Your task to perform on an android device: change text size in settings app Image 0: 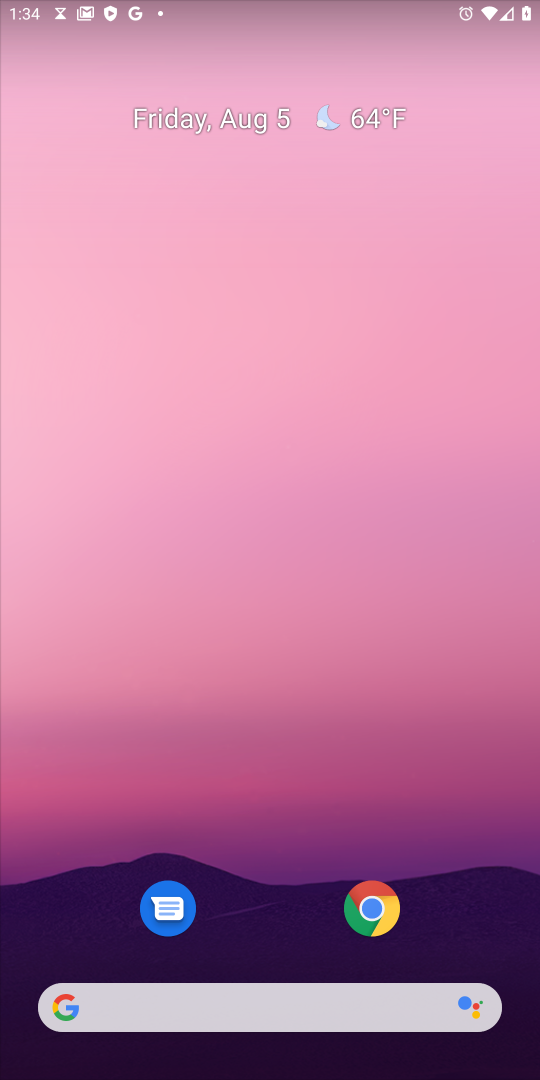
Step 0: press home button
Your task to perform on an android device: change text size in settings app Image 1: 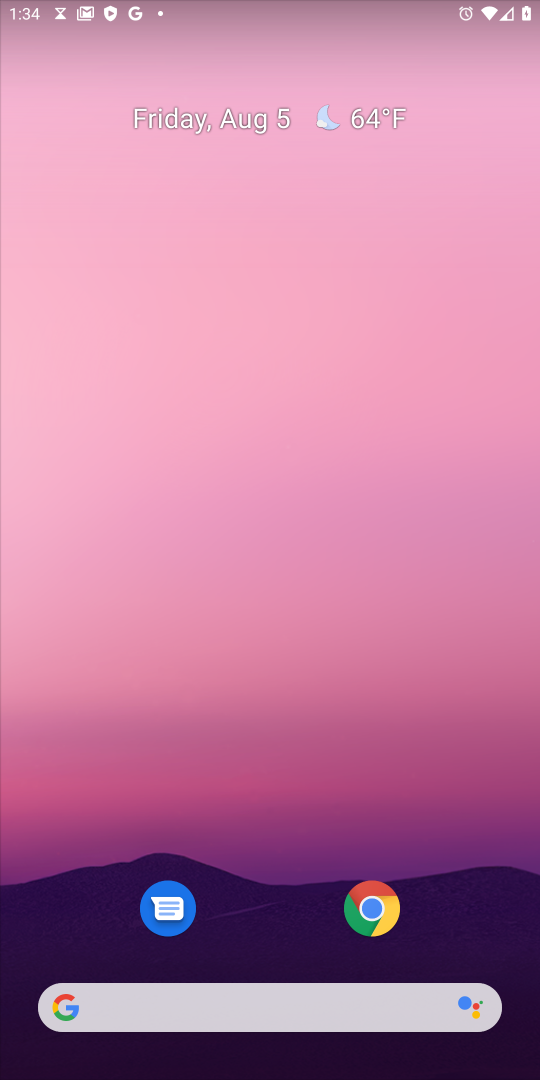
Step 1: drag from (227, 971) to (349, 0)
Your task to perform on an android device: change text size in settings app Image 2: 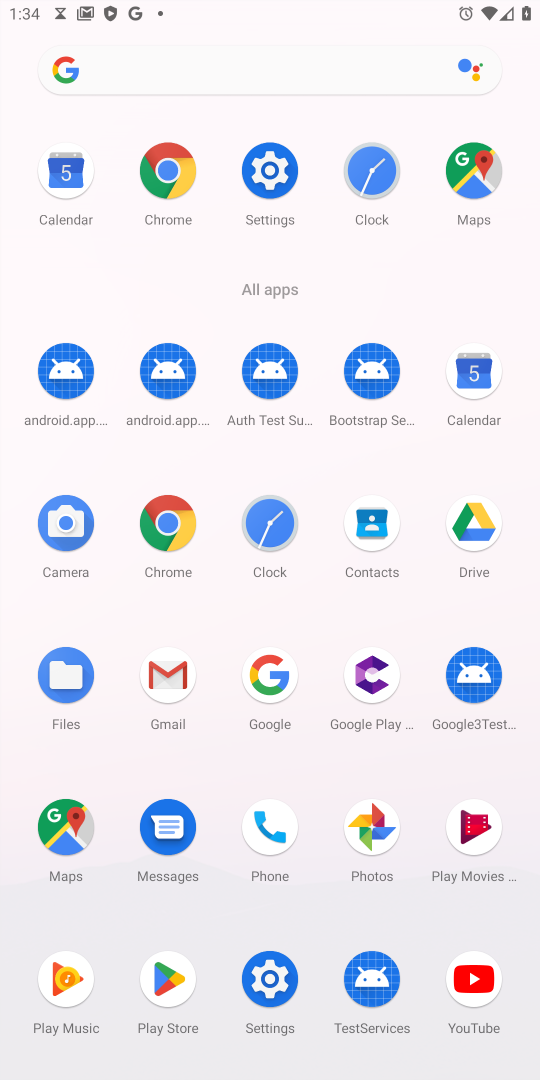
Step 2: click (272, 173)
Your task to perform on an android device: change text size in settings app Image 3: 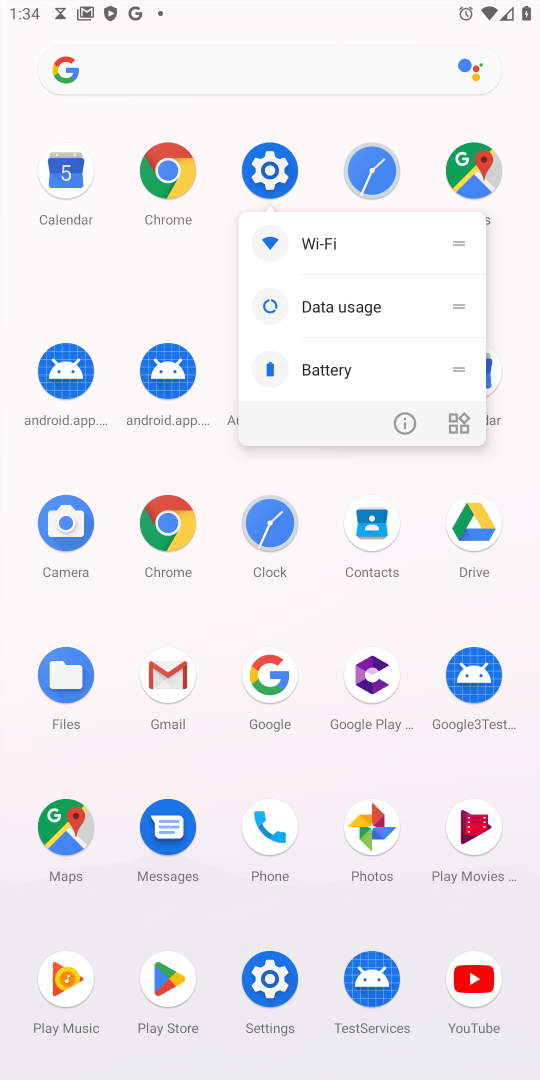
Step 3: click (272, 173)
Your task to perform on an android device: change text size in settings app Image 4: 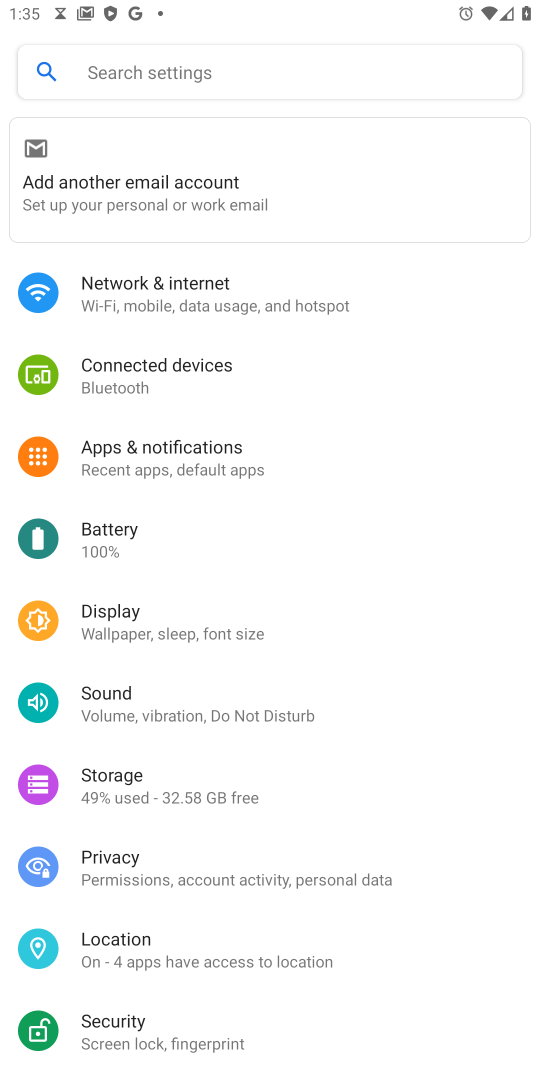
Step 4: drag from (209, 963) to (228, 454)
Your task to perform on an android device: change text size in settings app Image 5: 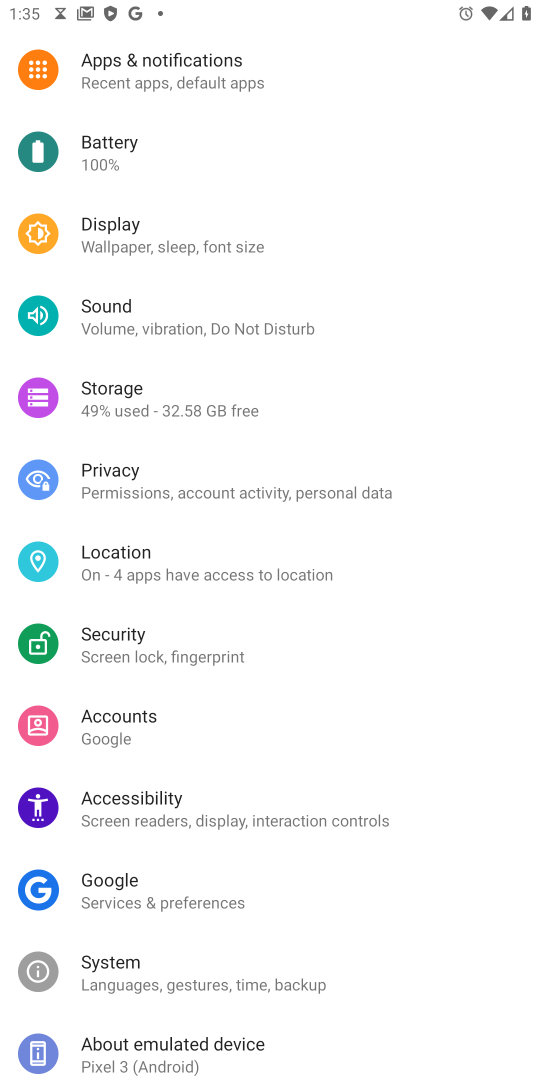
Step 5: click (126, 262)
Your task to perform on an android device: change text size in settings app Image 6: 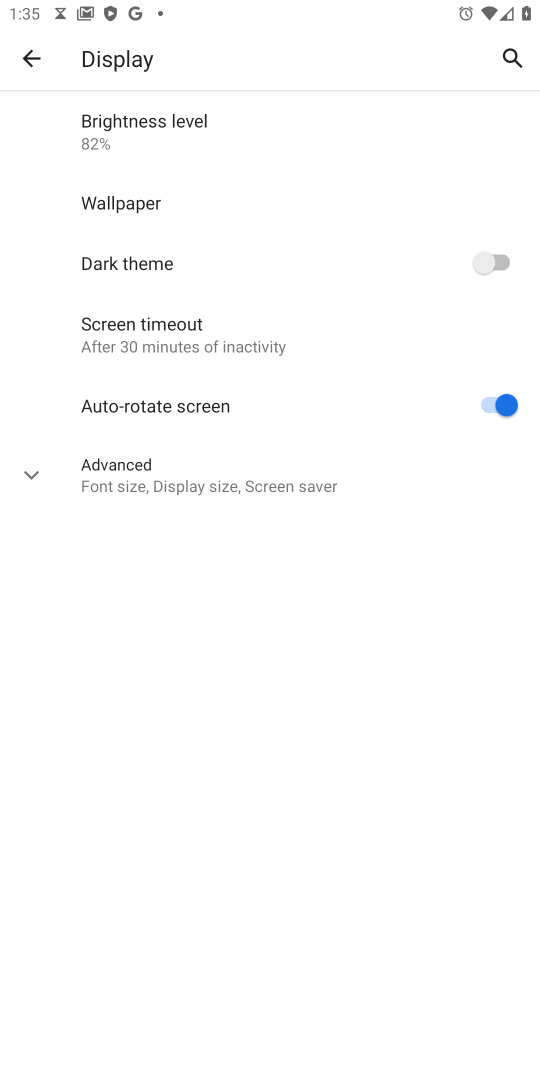
Step 6: click (188, 482)
Your task to perform on an android device: change text size in settings app Image 7: 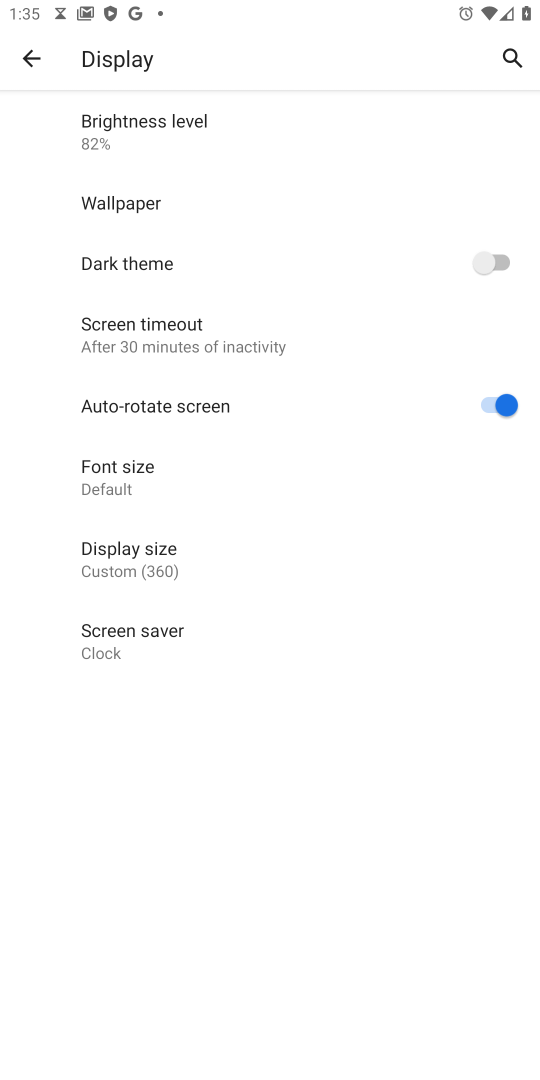
Step 7: click (188, 482)
Your task to perform on an android device: change text size in settings app Image 8: 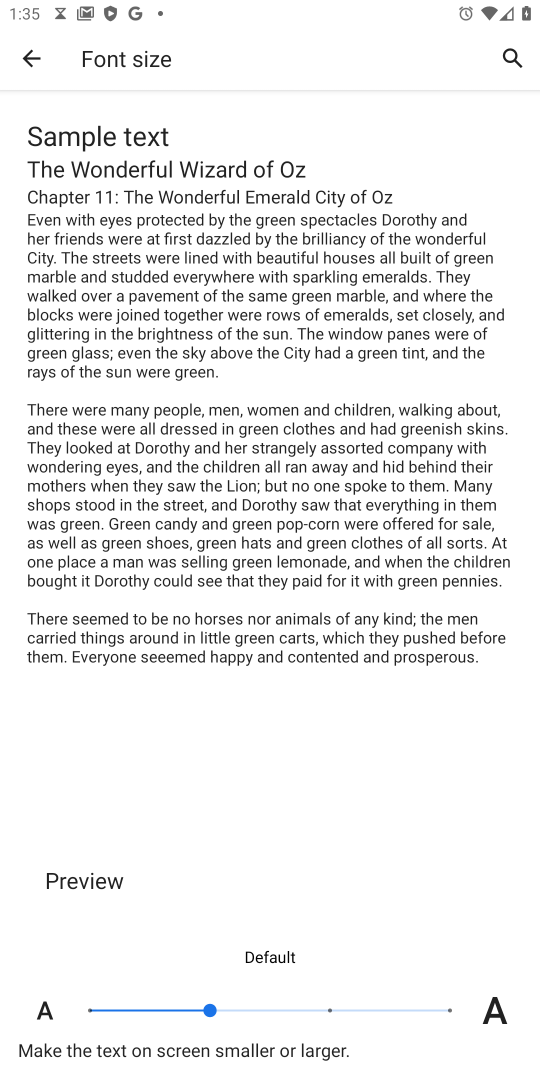
Step 8: click (487, 1008)
Your task to perform on an android device: change text size in settings app Image 9: 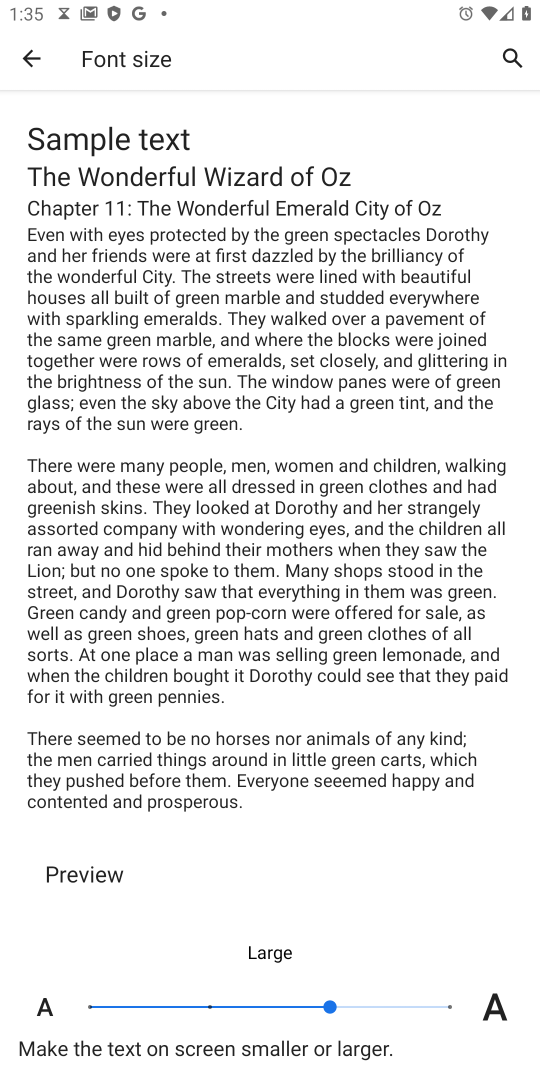
Step 9: task complete